Your task to perform on an android device: uninstall "Walmart Shopping & Grocery" Image 0: 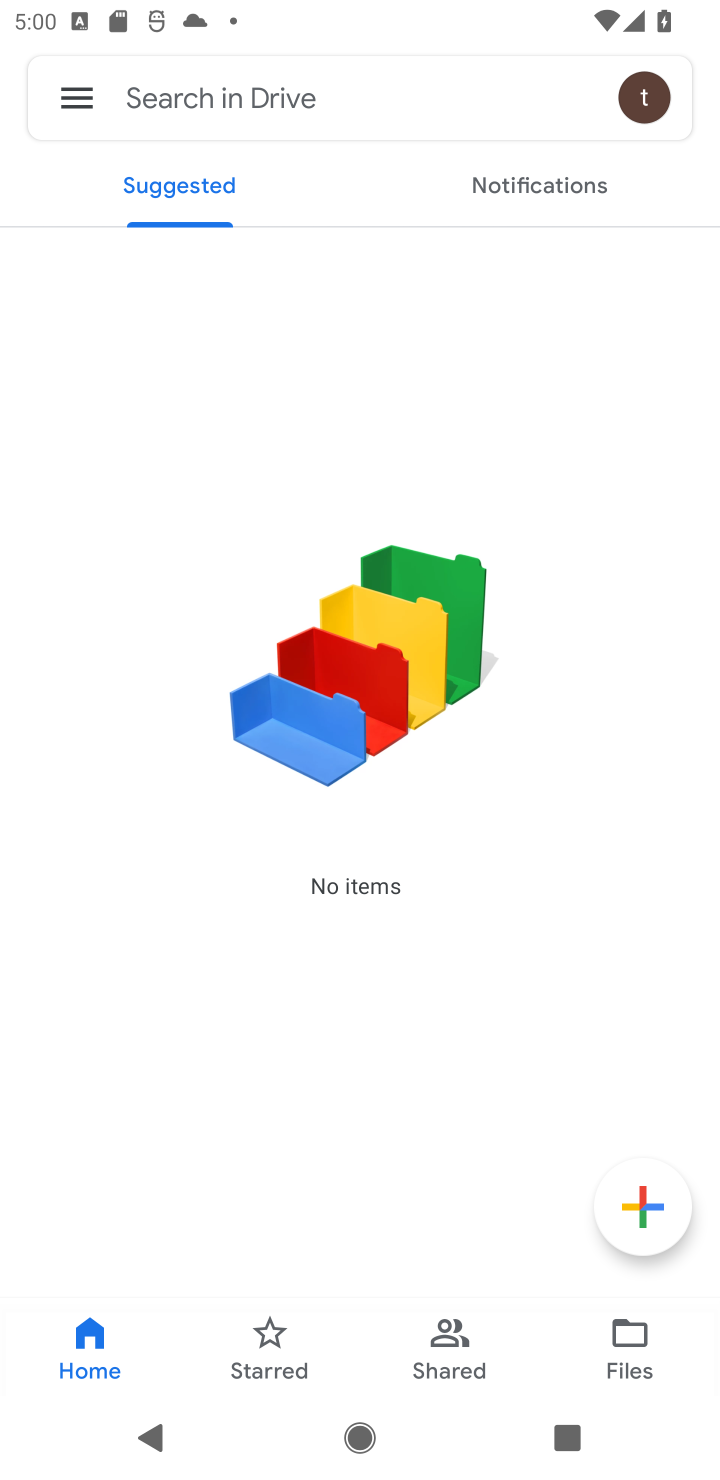
Step 0: press home button
Your task to perform on an android device: uninstall "Walmart Shopping & Grocery" Image 1: 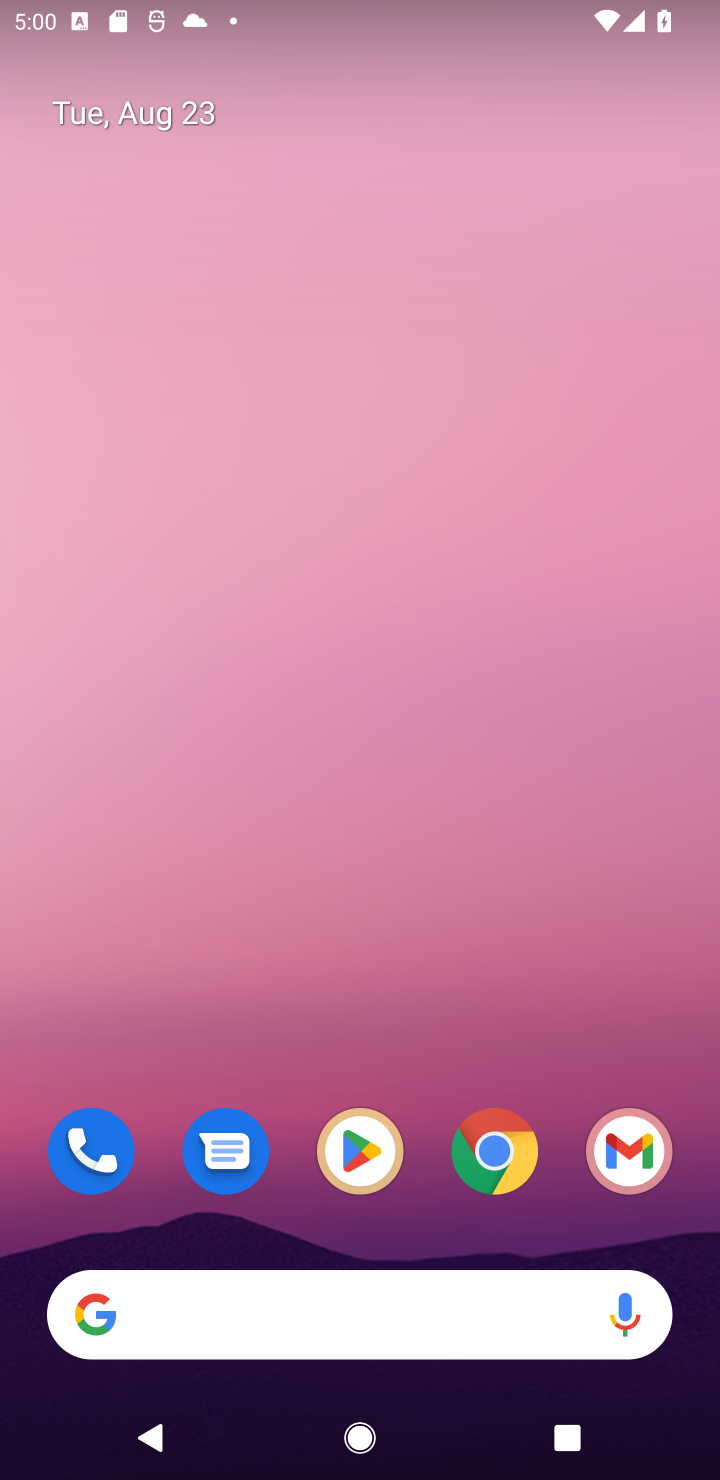
Step 1: click (364, 1141)
Your task to perform on an android device: uninstall "Walmart Shopping & Grocery" Image 2: 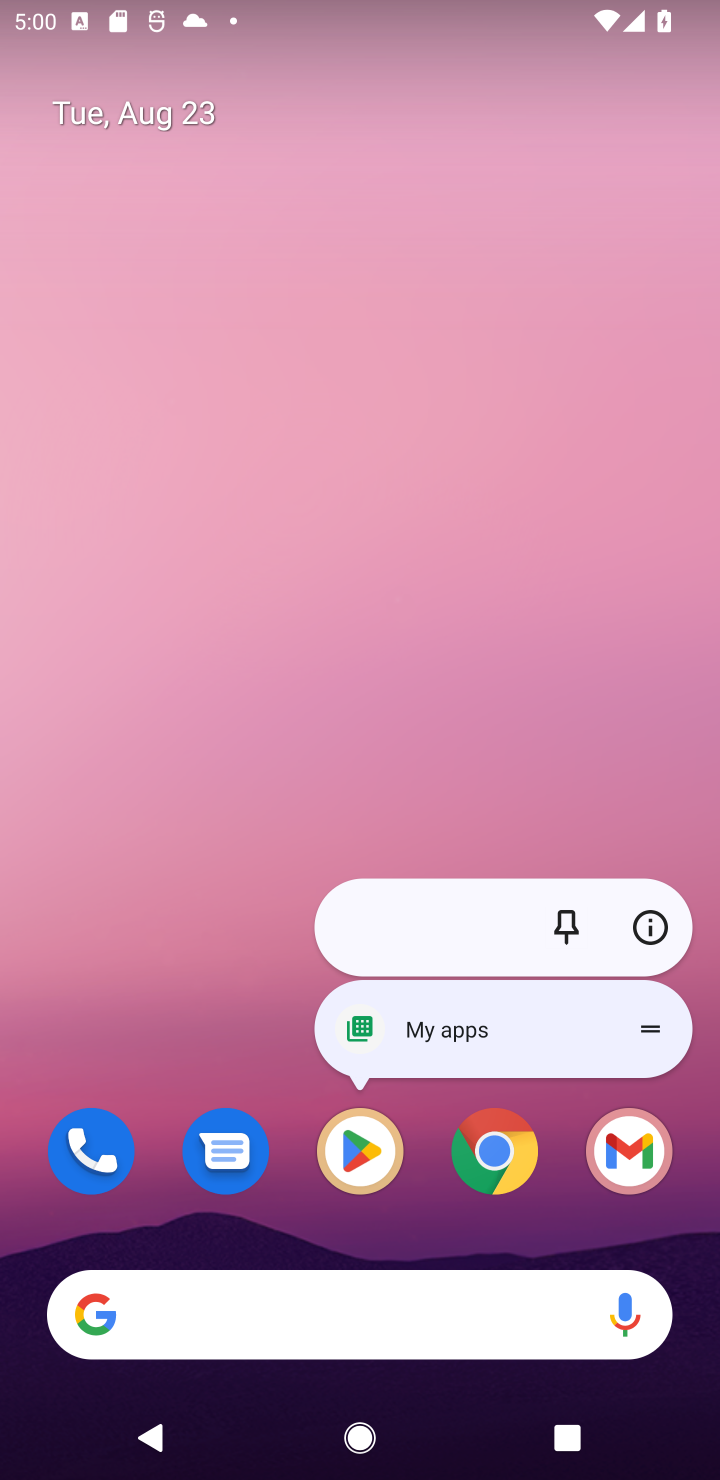
Step 2: click (356, 1155)
Your task to perform on an android device: uninstall "Walmart Shopping & Grocery" Image 3: 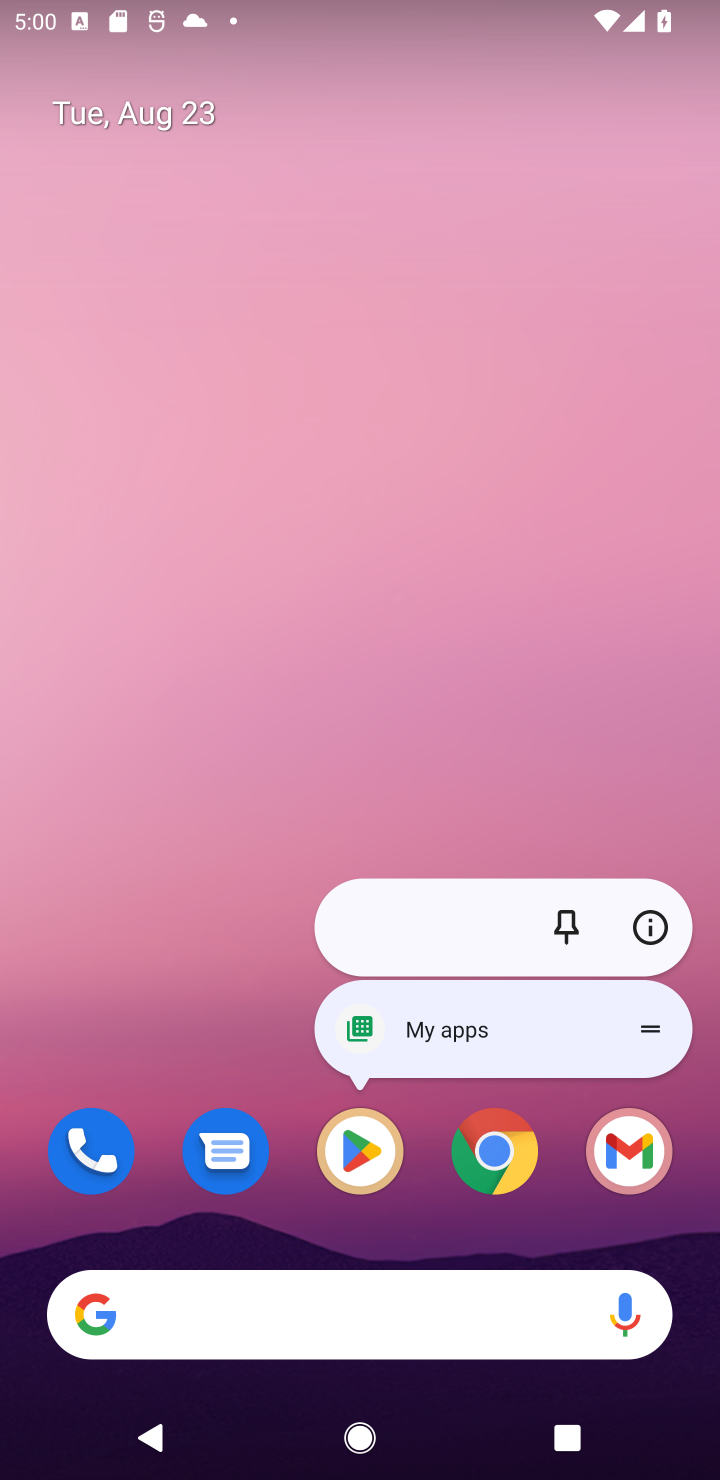
Step 3: click (367, 1155)
Your task to perform on an android device: uninstall "Walmart Shopping & Grocery" Image 4: 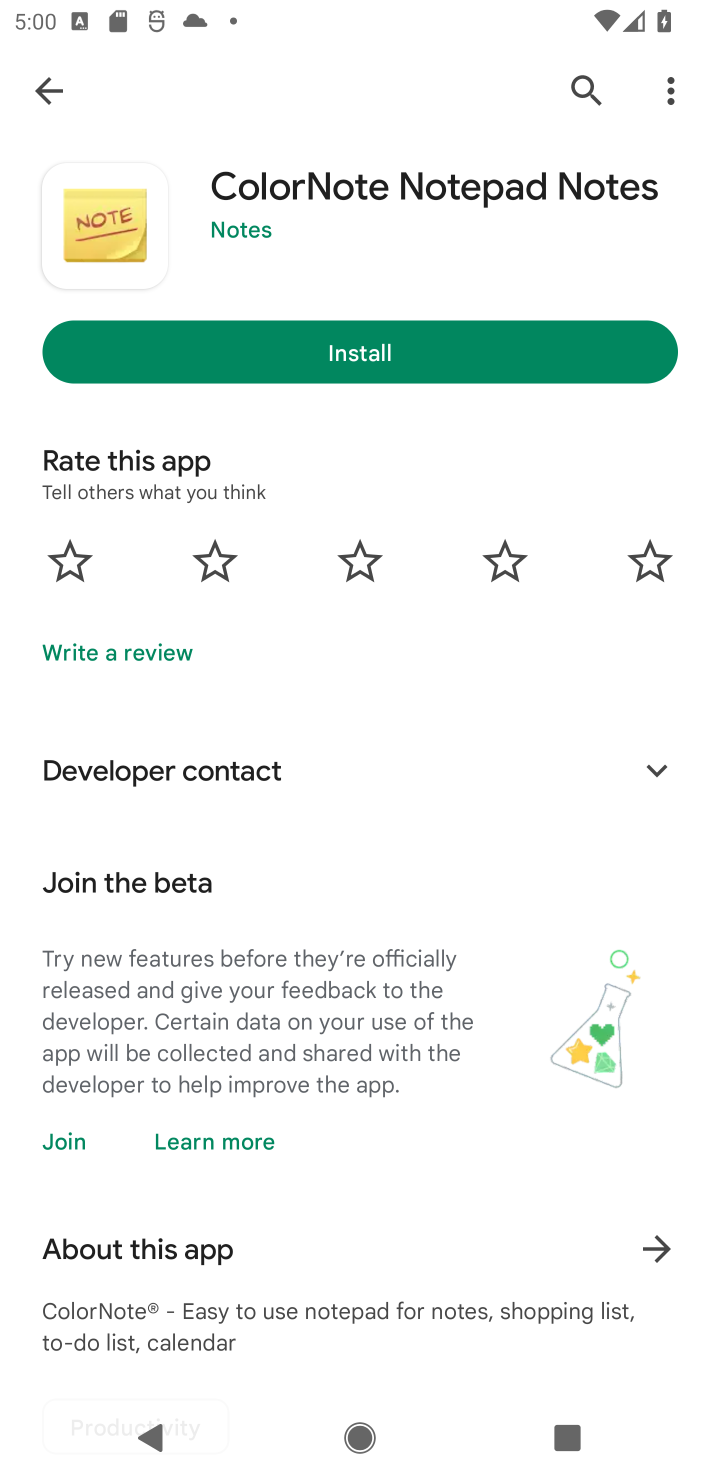
Step 4: click (589, 80)
Your task to perform on an android device: uninstall "Walmart Shopping & Grocery" Image 5: 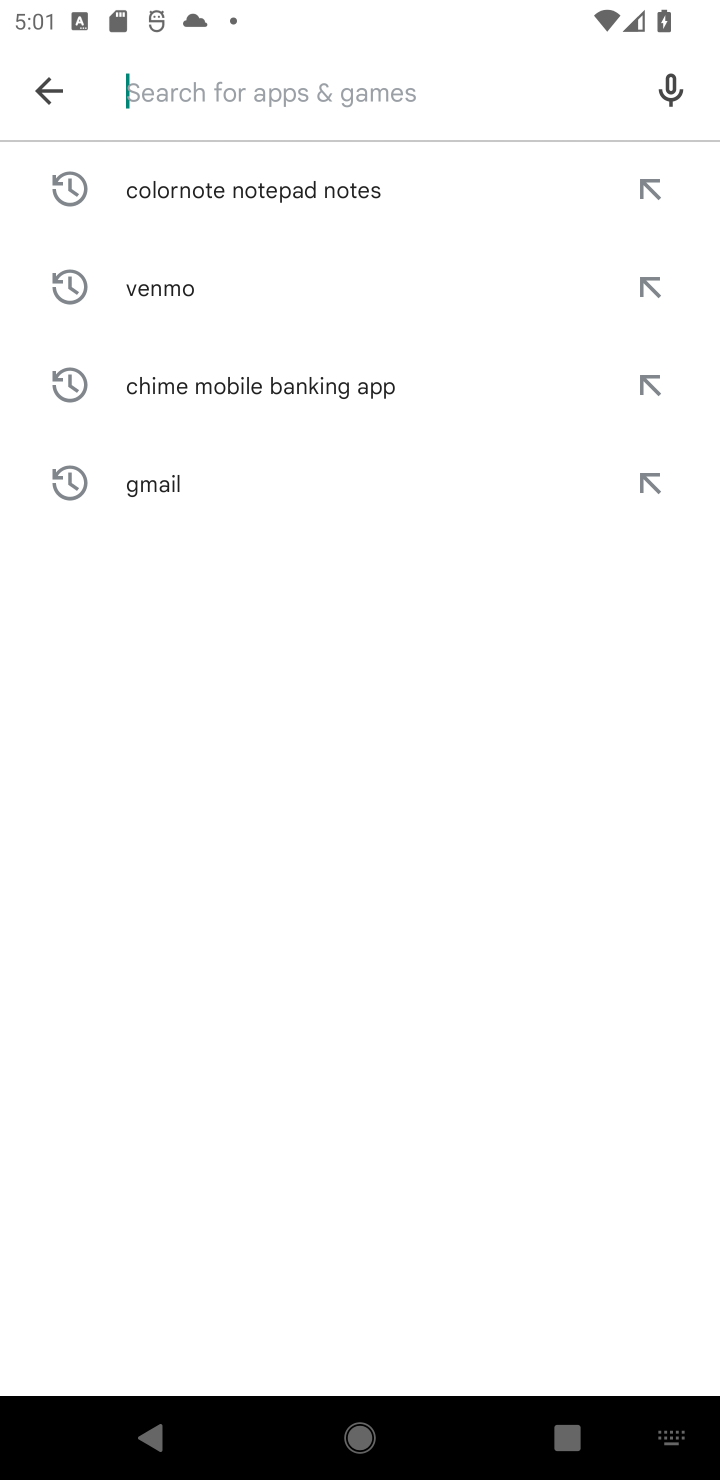
Step 5: type "Walmart Shopping & Grocery"
Your task to perform on an android device: uninstall "Walmart Shopping & Grocery" Image 6: 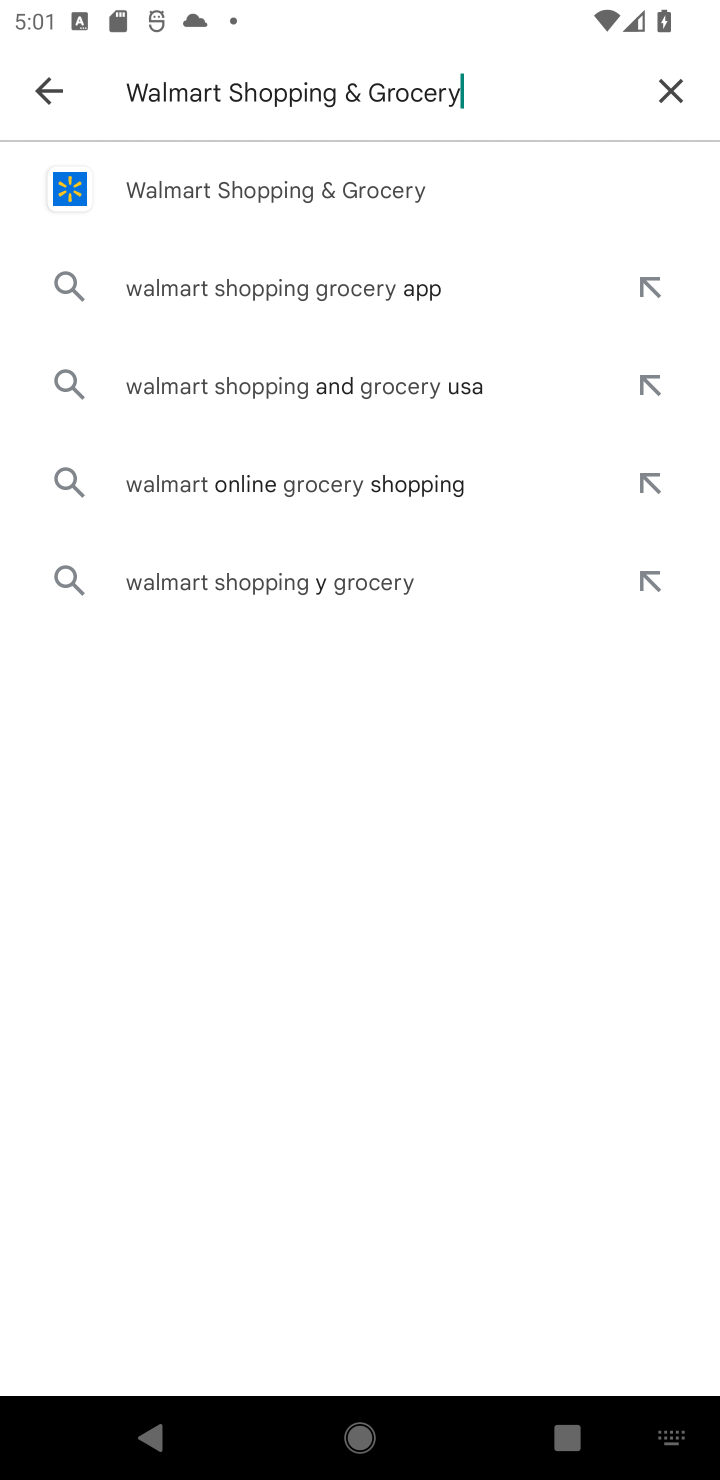
Step 6: click (338, 180)
Your task to perform on an android device: uninstall "Walmart Shopping & Grocery" Image 7: 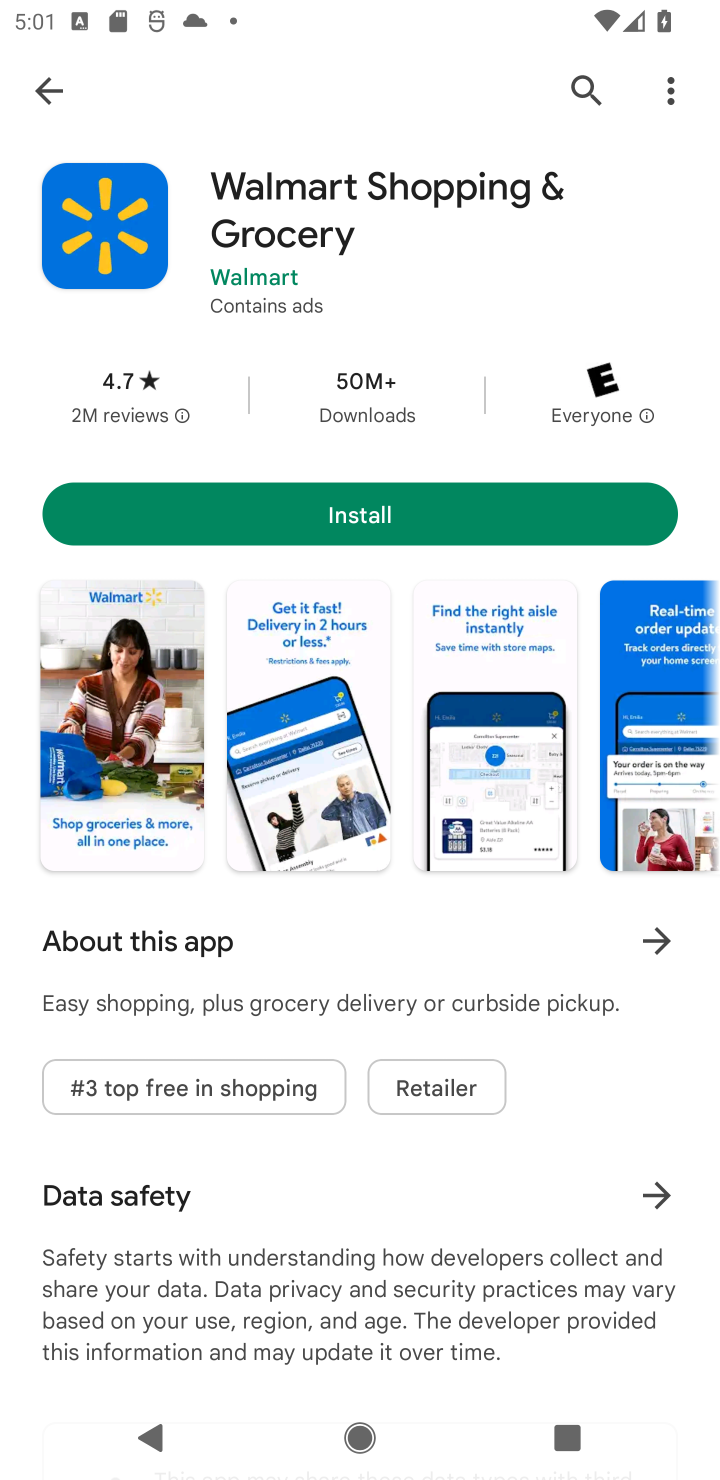
Step 7: task complete